Your task to perform on an android device: Search for the new nike shoes on Target Image 0: 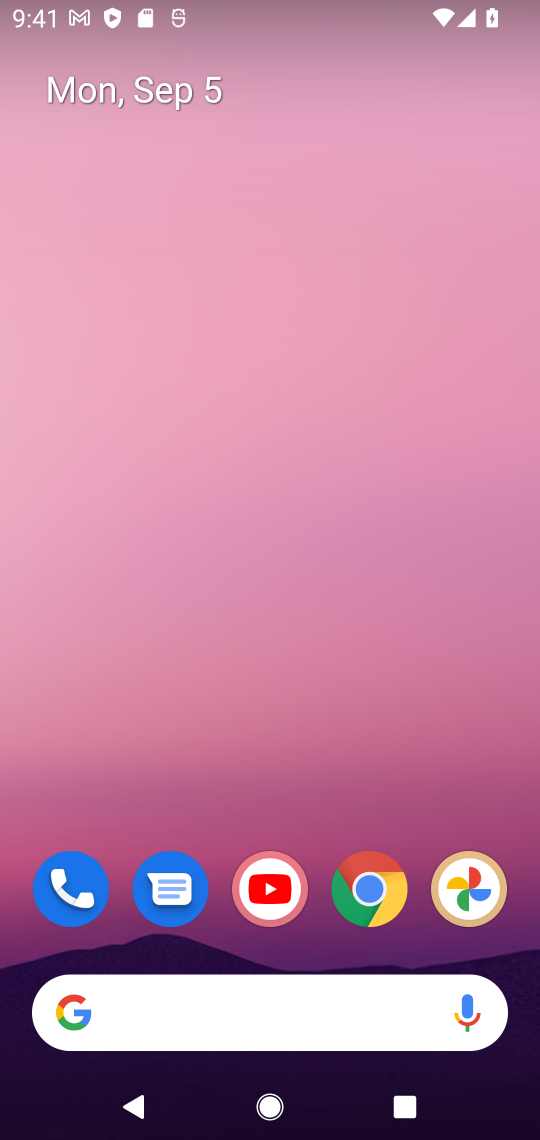
Step 0: click (186, 1019)
Your task to perform on an android device: Search for the new nike shoes on Target Image 1: 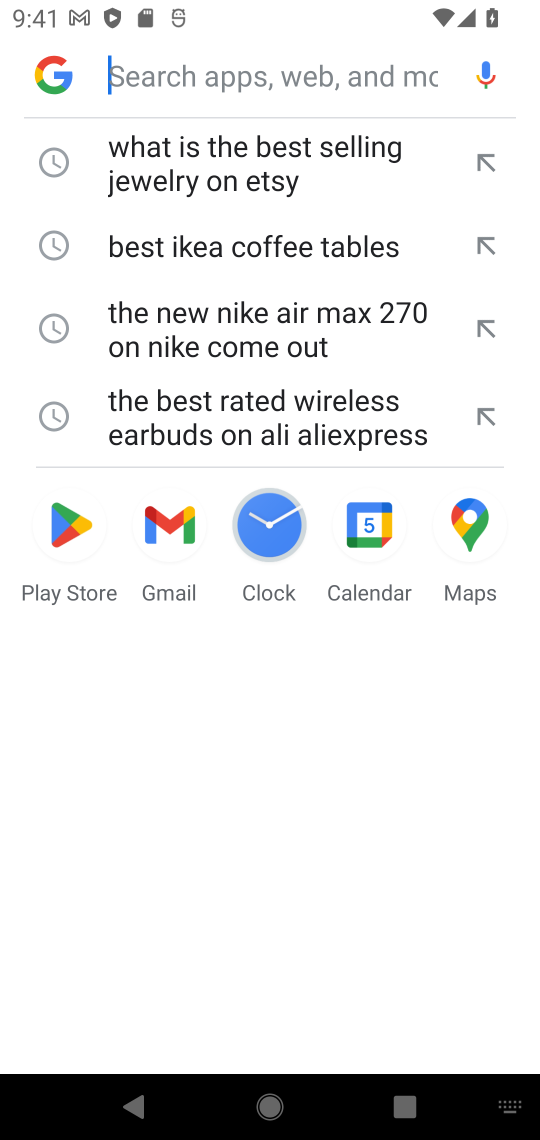
Step 1: type " the new nike shoes on Target"
Your task to perform on an android device: Search for the new nike shoes on Target Image 2: 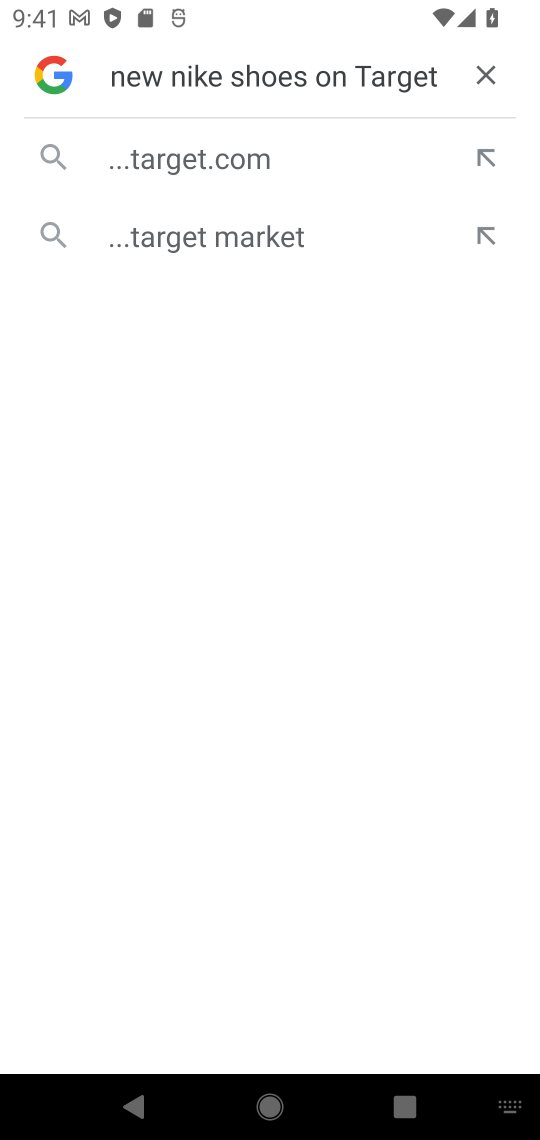
Step 2: click (206, 163)
Your task to perform on an android device: Search for the new nike shoes on Target Image 3: 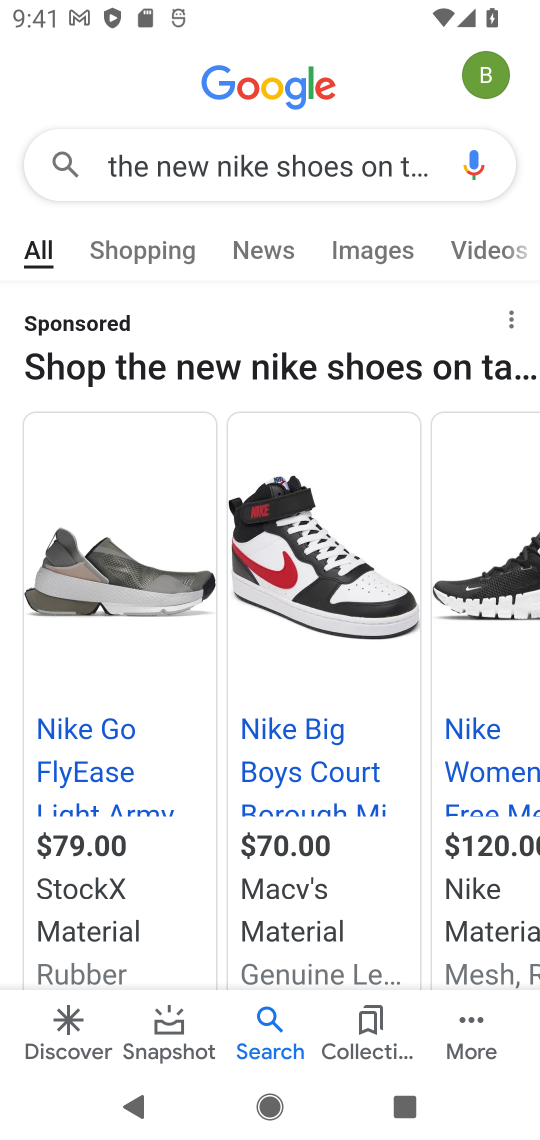
Step 3: task complete